Your task to perform on an android device: Do I have any events today? Image 0: 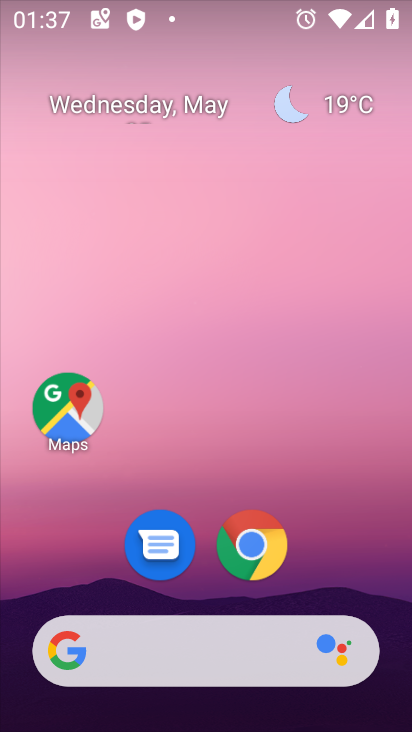
Step 0: drag from (335, 532) to (332, 136)
Your task to perform on an android device: Do I have any events today? Image 1: 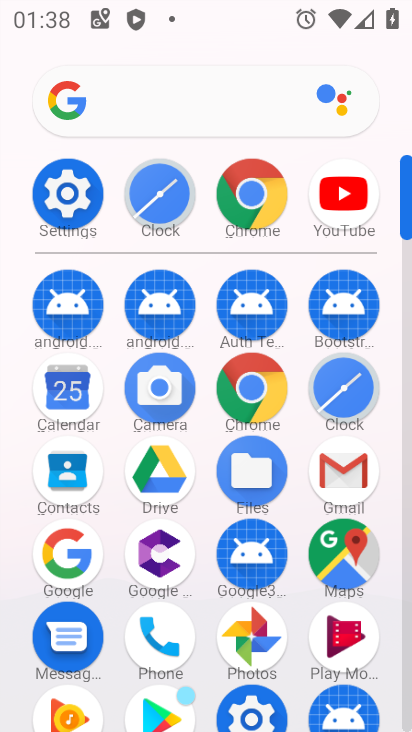
Step 1: click (65, 379)
Your task to perform on an android device: Do I have any events today? Image 2: 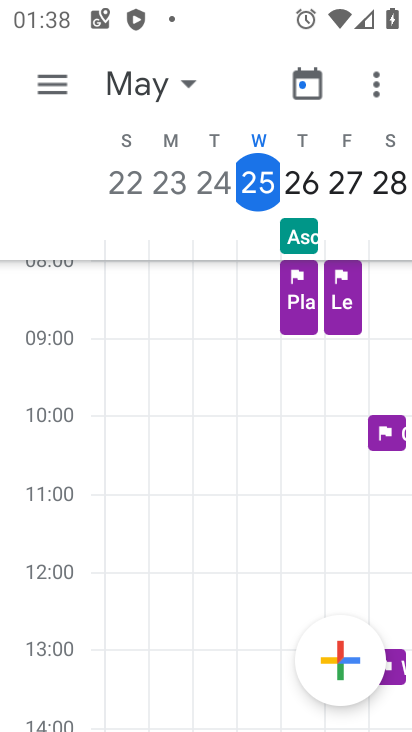
Step 2: task complete